Your task to perform on an android device: turn smart compose on in the gmail app Image 0: 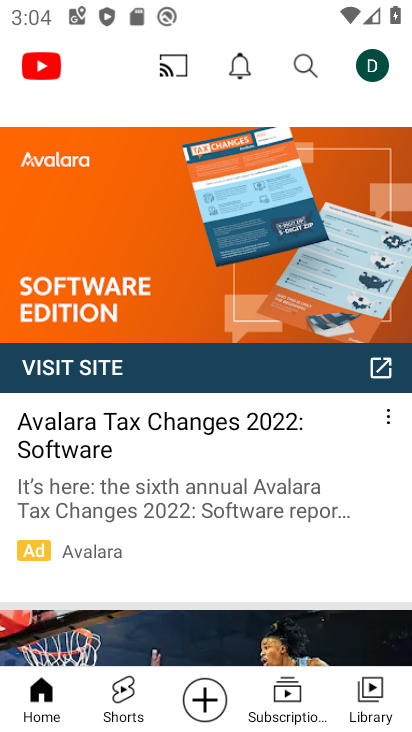
Step 0: press home button
Your task to perform on an android device: turn smart compose on in the gmail app Image 1: 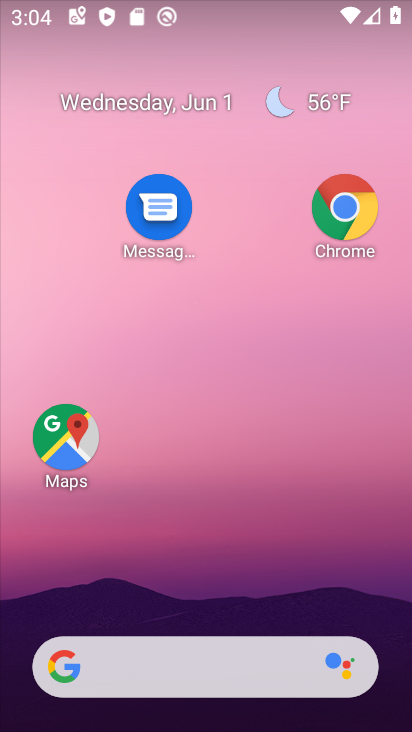
Step 1: drag from (206, 643) to (234, 44)
Your task to perform on an android device: turn smart compose on in the gmail app Image 2: 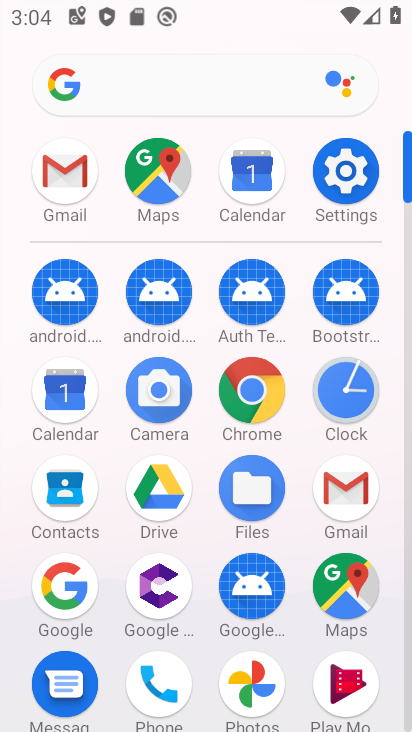
Step 2: click (354, 492)
Your task to perform on an android device: turn smart compose on in the gmail app Image 3: 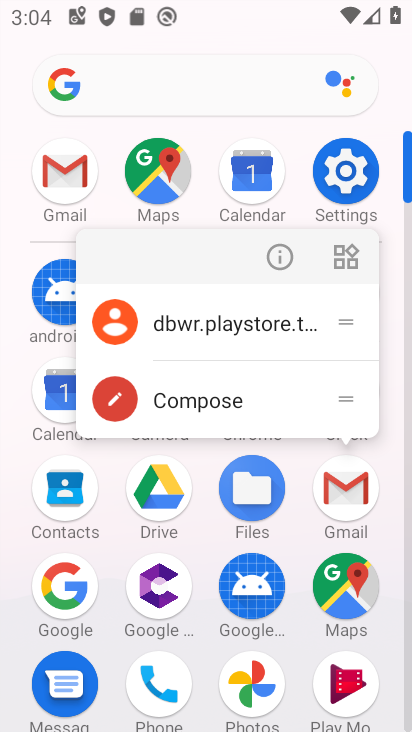
Step 3: click (272, 257)
Your task to perform on an android device: turn smart compose on in the gmail app Image 4: 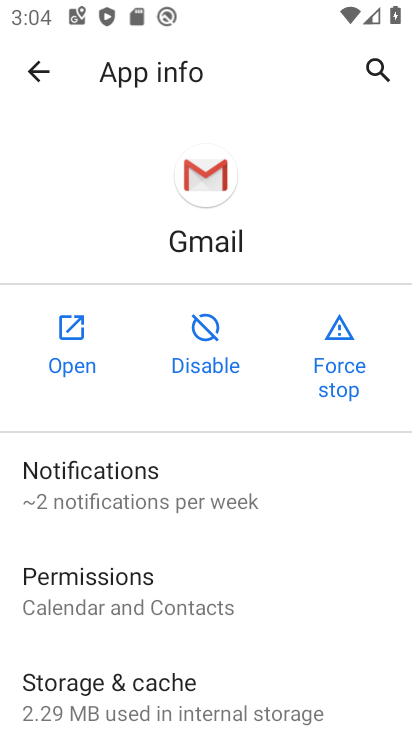
Step 4: click (64, 340)
Your task to perform on an android device: turn smart compose on in the gmail app Image 5: 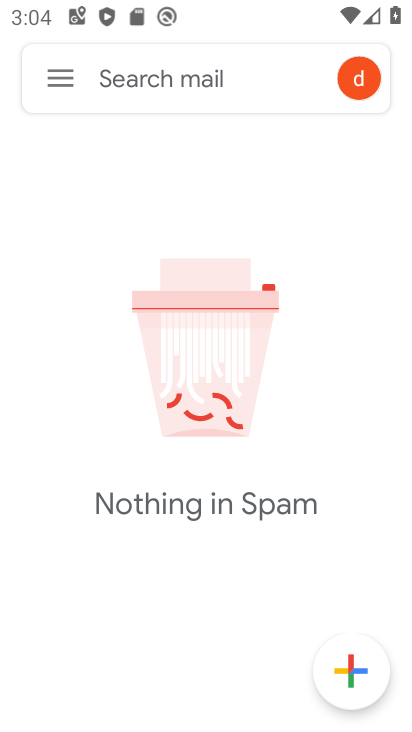
Step 5: click (38, 70)
Your task to perform on an android device: turn smart compose on in the gmail app Image 6: 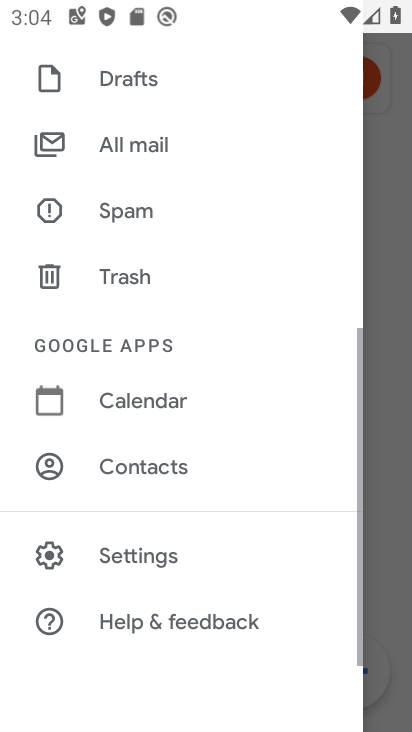
Step 6: drag from (179, 574) to (237, 177)
Your task to perform on an android device: turn smart compose on in the gmail app Image 7: 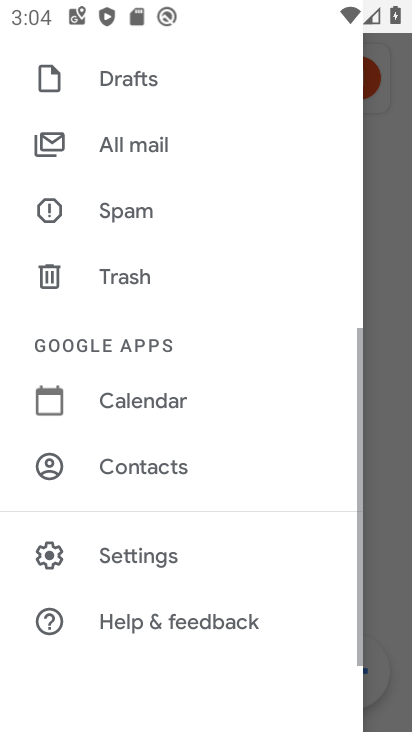
Step 7: click (170, 556)
Your task to perform on an android device: turn smart compose on in the gmail app Image 8: 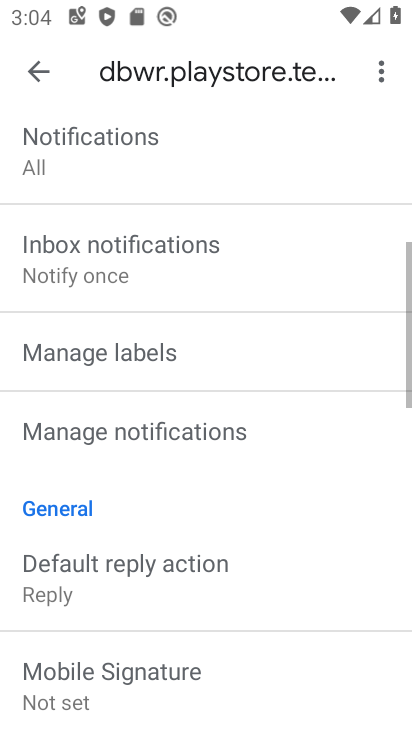
Step 8: task complete